Your task to perform on an android device: Clear the shopping cart on bestbuy.com. Add rayovac triple a to the cart on bestbuy.com Image 0: 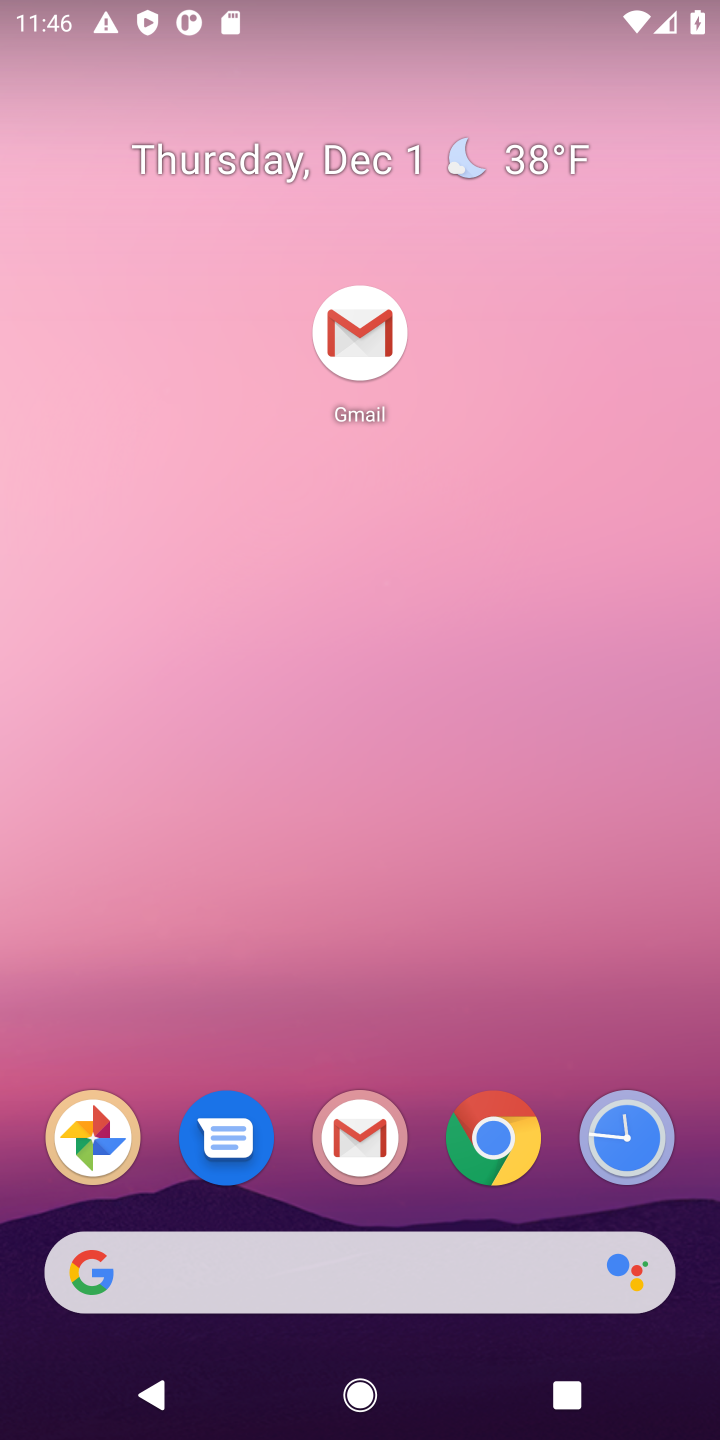
Step 0: drag from (422, 1130) to (440, 396)
Your task to perform on an android device: Clear the shopping cart on bestbuy.com. Add rayovac triple a to the cart on bestbuy.com Image 1: 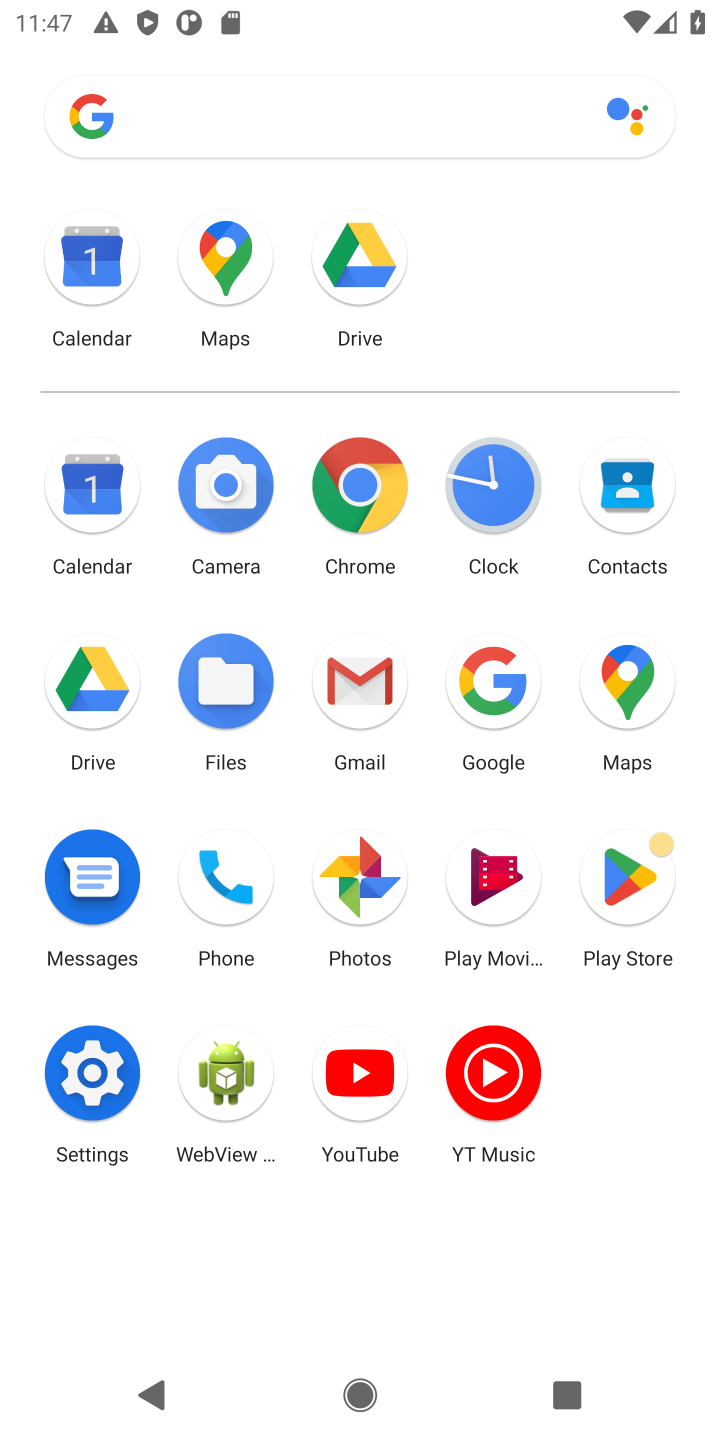
Step 1: click (498, 707)
Your task to perform on an android device: Clear the shopping cart on bestbuy.com. Add rayovac triple a to the cart on bestbuy.com Image 2: 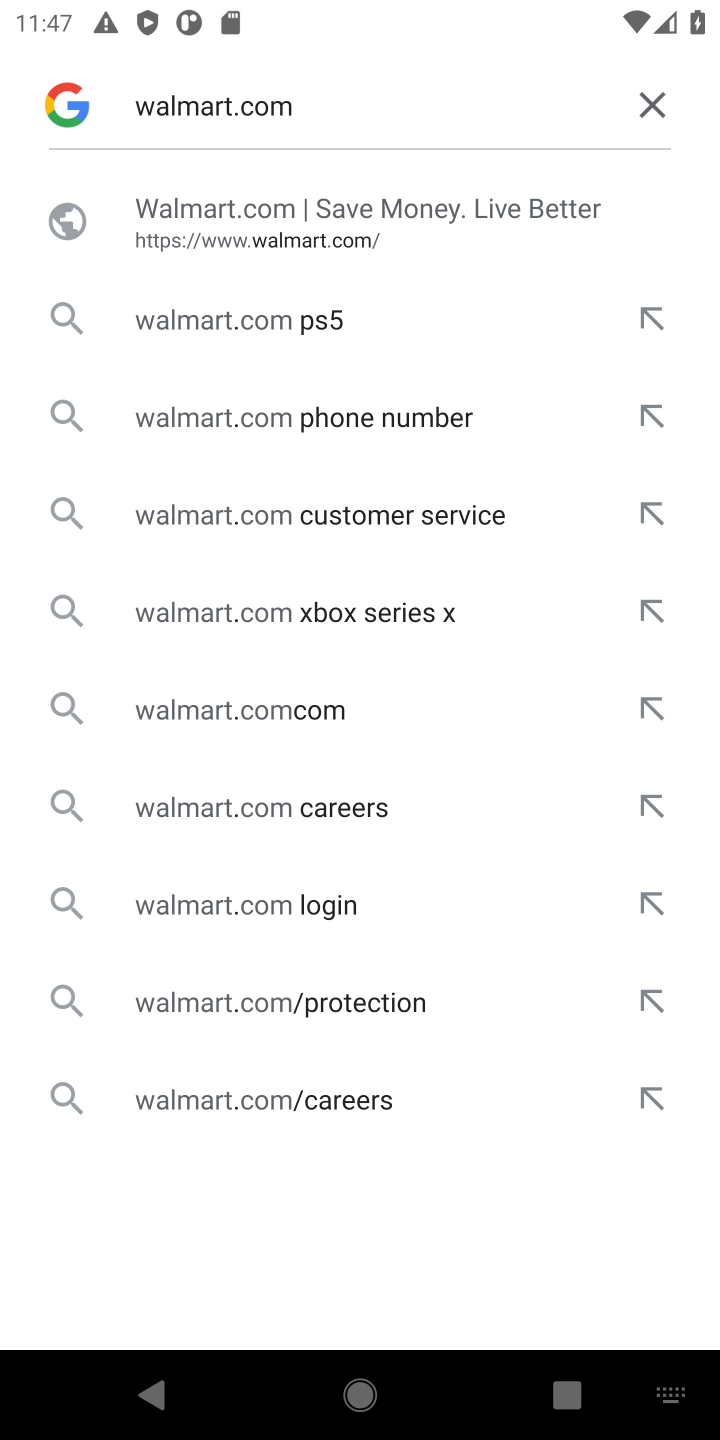
Step 2: click (649, 107)
Your task to perform on an android device: Clear the shopping cart on bestbuy.com. Add rayovac triple a to the cart on bestbuy.com Image 3: 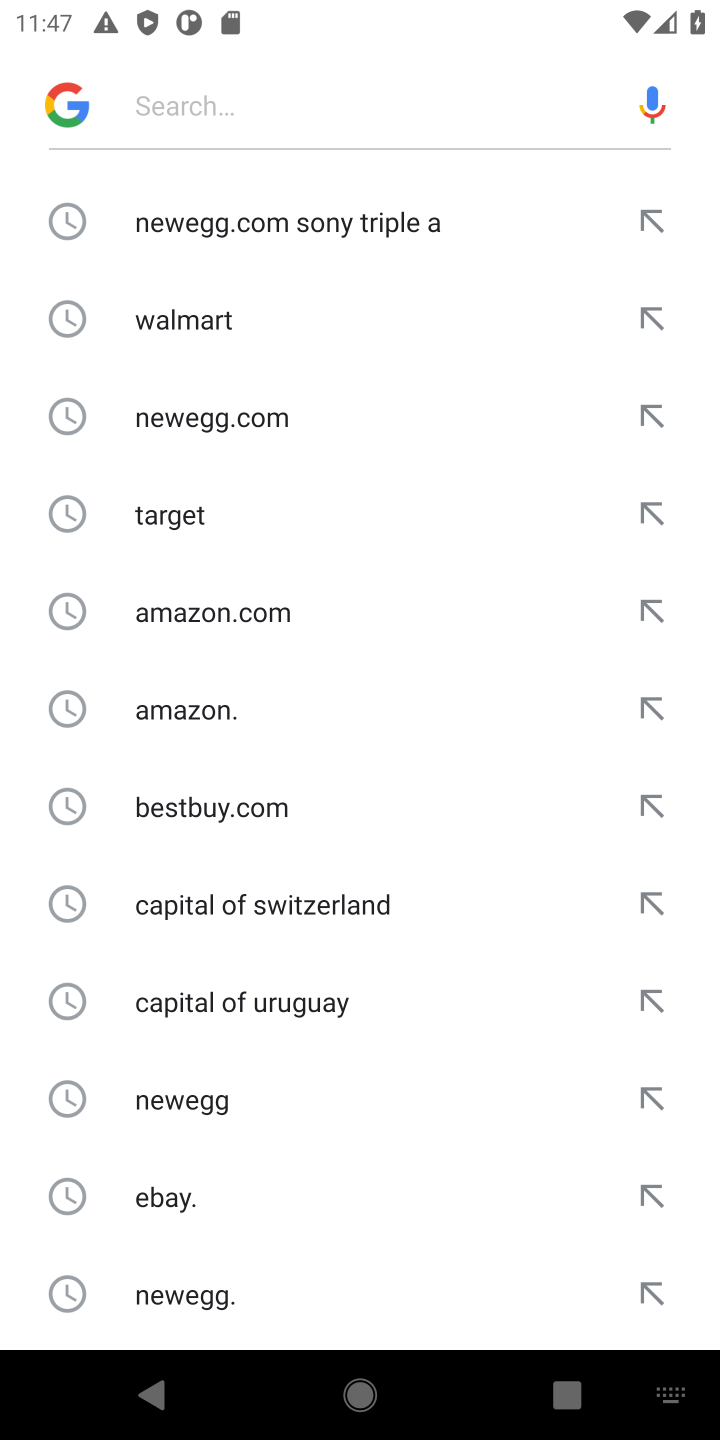
Step 3: type "bestbuy.com"
Your task to perform on an android device: Clear the shopping cart on bestbuy.com. Add rayovac triple a to the cart on bestbuy.com Image 4: 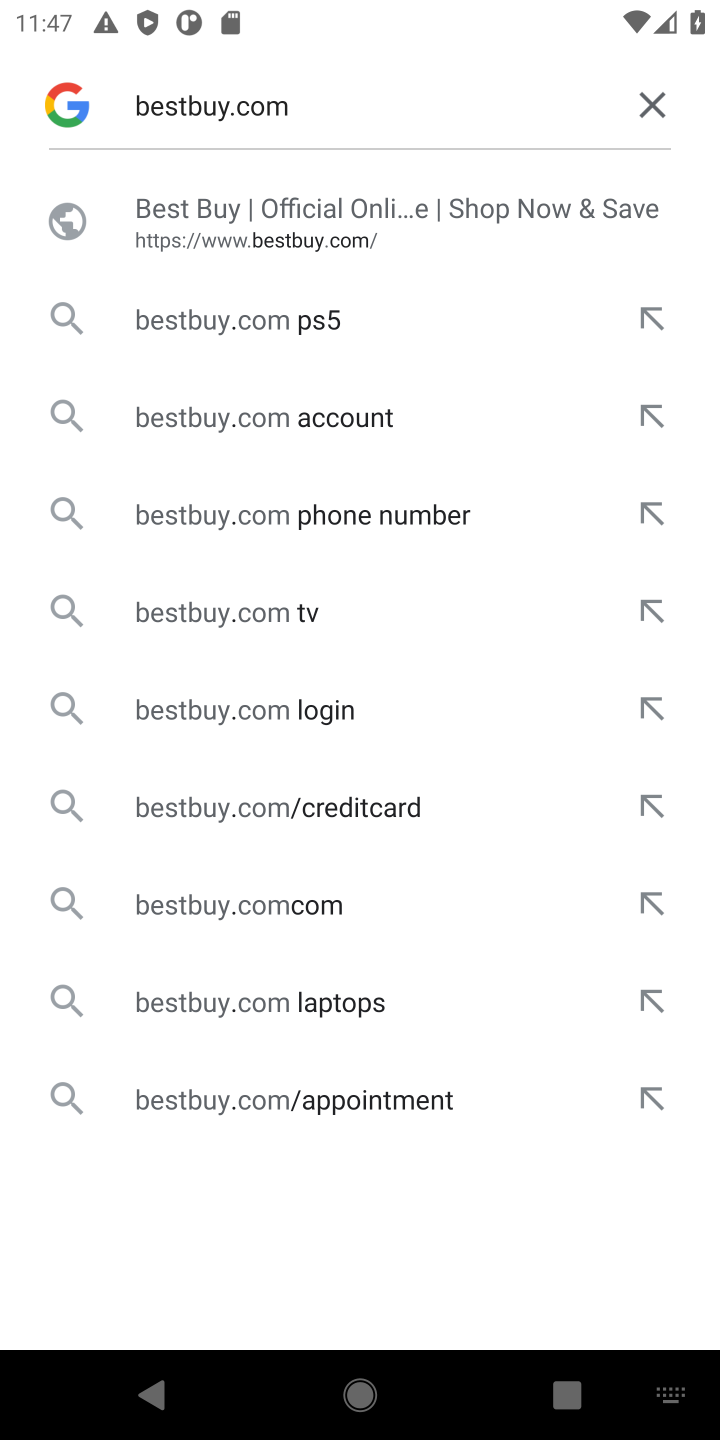
Step 4: click (418, 241)
Your task to perform on an android device: Clear the shopping cart on bestbuy.com. Add rayovac triple a to the cart on bestbuy.com Image 5: 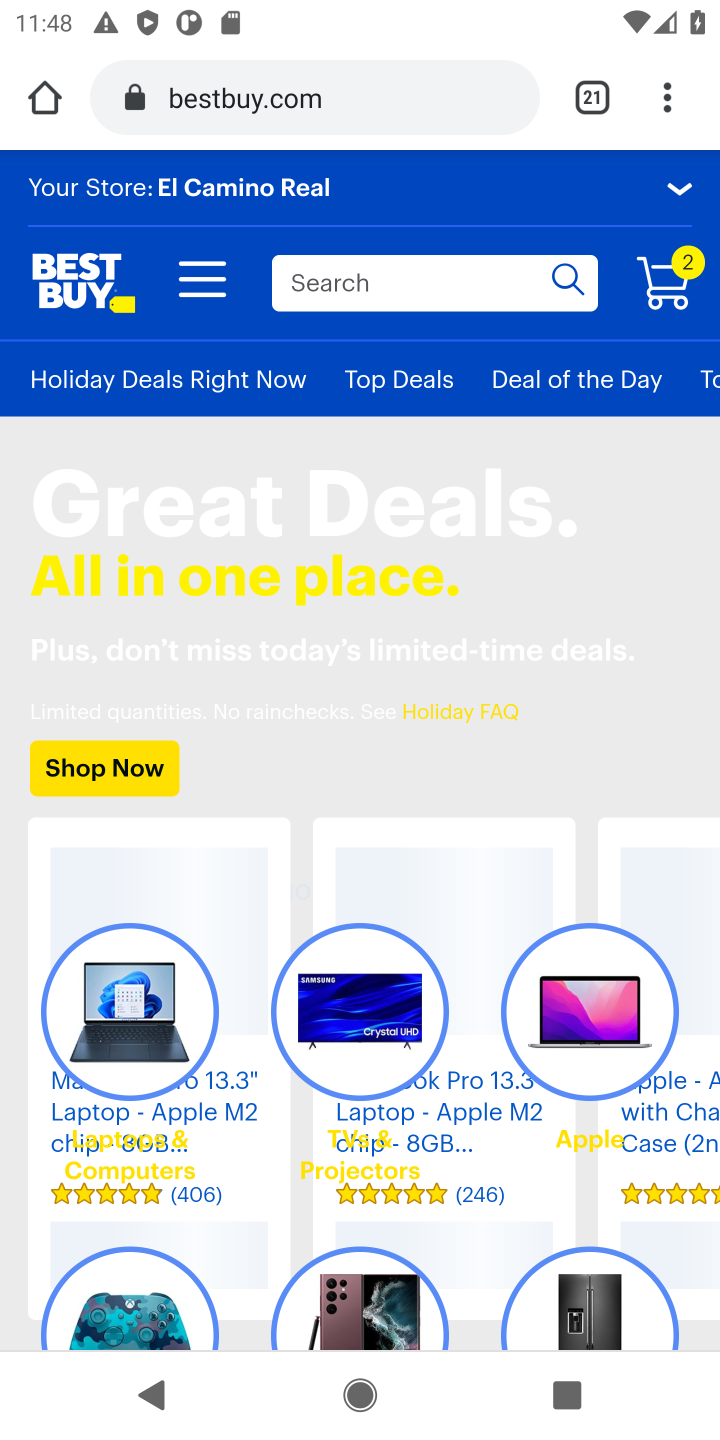
Step 5: click (666, 300)
Your task to perform on an android device: Clear the shopping cart on bestbuy.com. Add rayovac triple a to the cart on bestbuy.com Image 6: 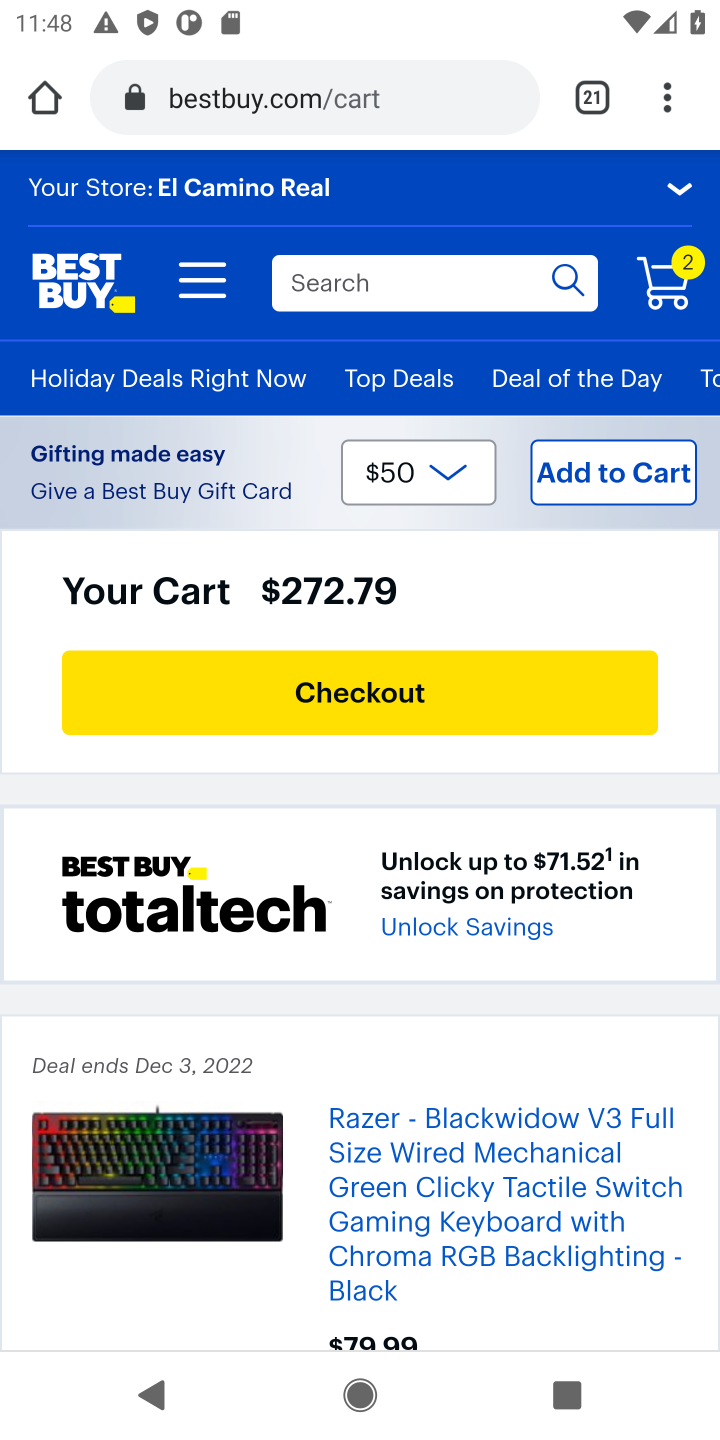
Step 6: drag from (498, 999) to (570, 437)
Your task to perform on an android device: Clear the shopping cart on bestbuy.com. Add rayovac triple a to the cart on bestbuy.com Image 7: 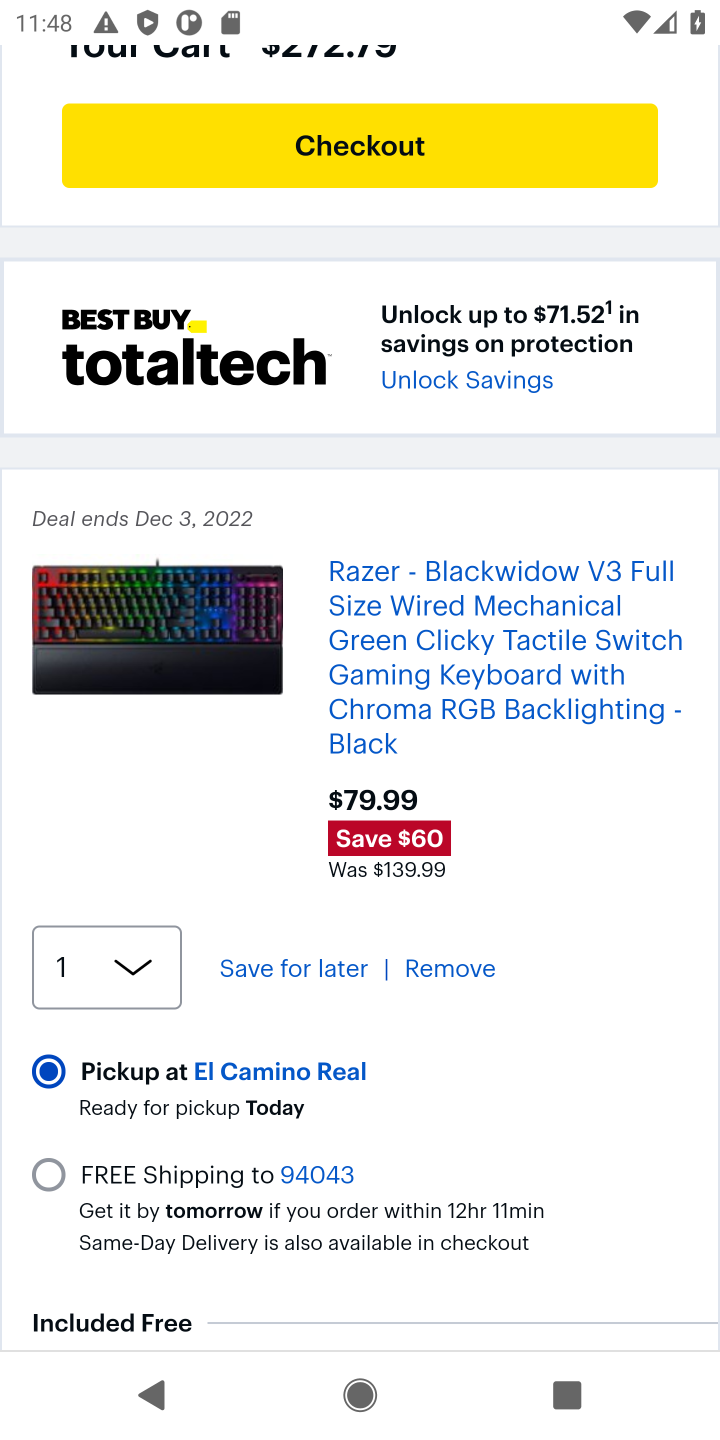
Step 7: drag from (323, 1047) to (343, 691)
Your task to perform on an android device: Clear the shopping cart on bestbuy.com. Add rayovac triple a to the cart on bestbuy.com Image 8: 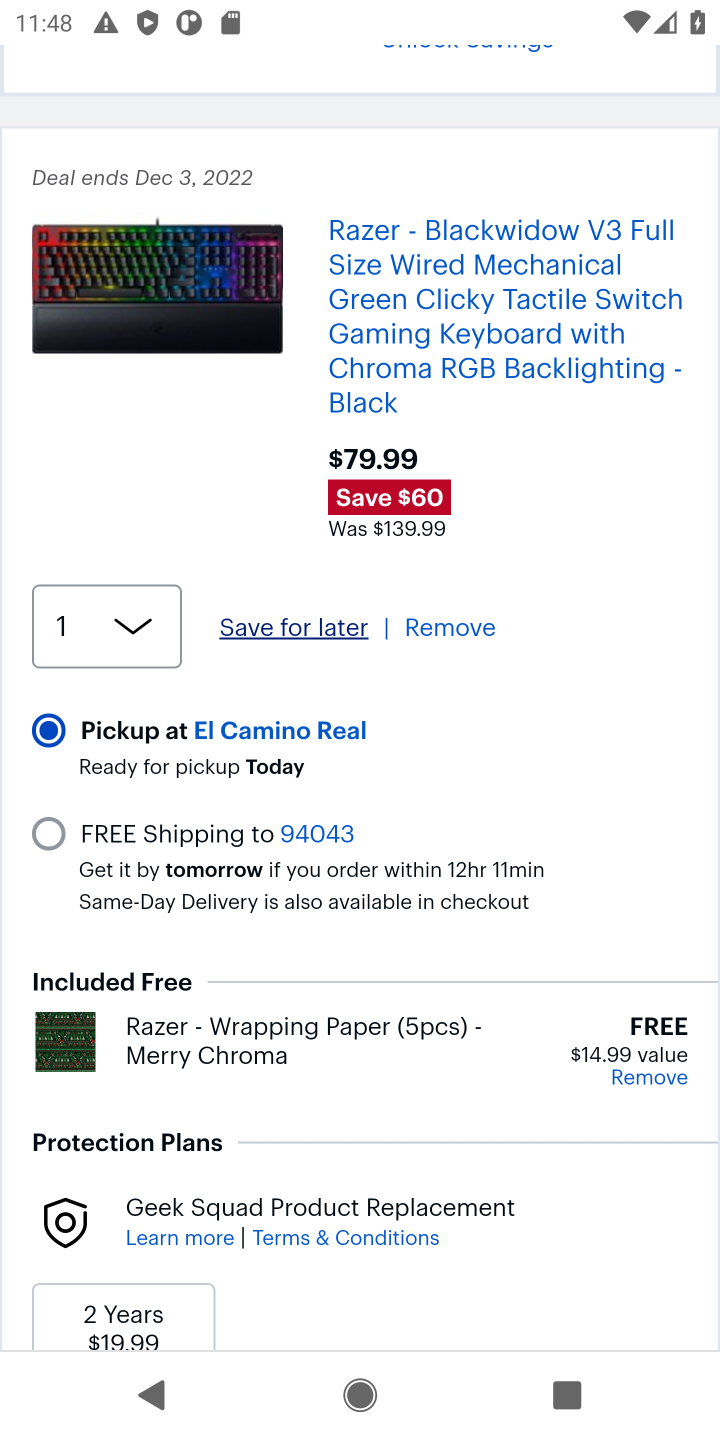
Step 8: click (417, 628)
Your task to perform on an android device: Clear the shopping cart on bestbuy.com. Add rayovac triple a to the cart on bestbuy.com Image 9: 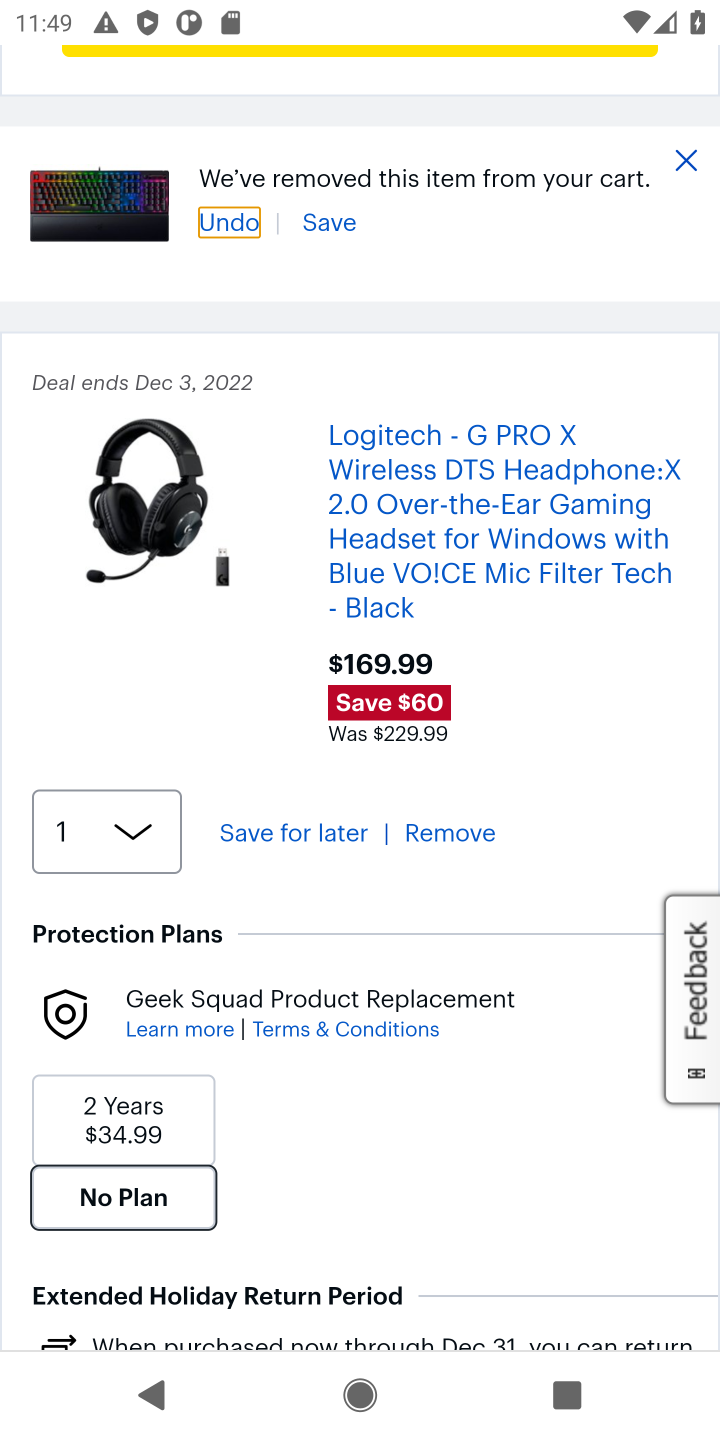
Step 9: click (448, 828)
Your task to perform on an android device: Clear the shopping cart on bestbuy.com. Add rayovac triple a to the cart on bestbuy.com Image 10: 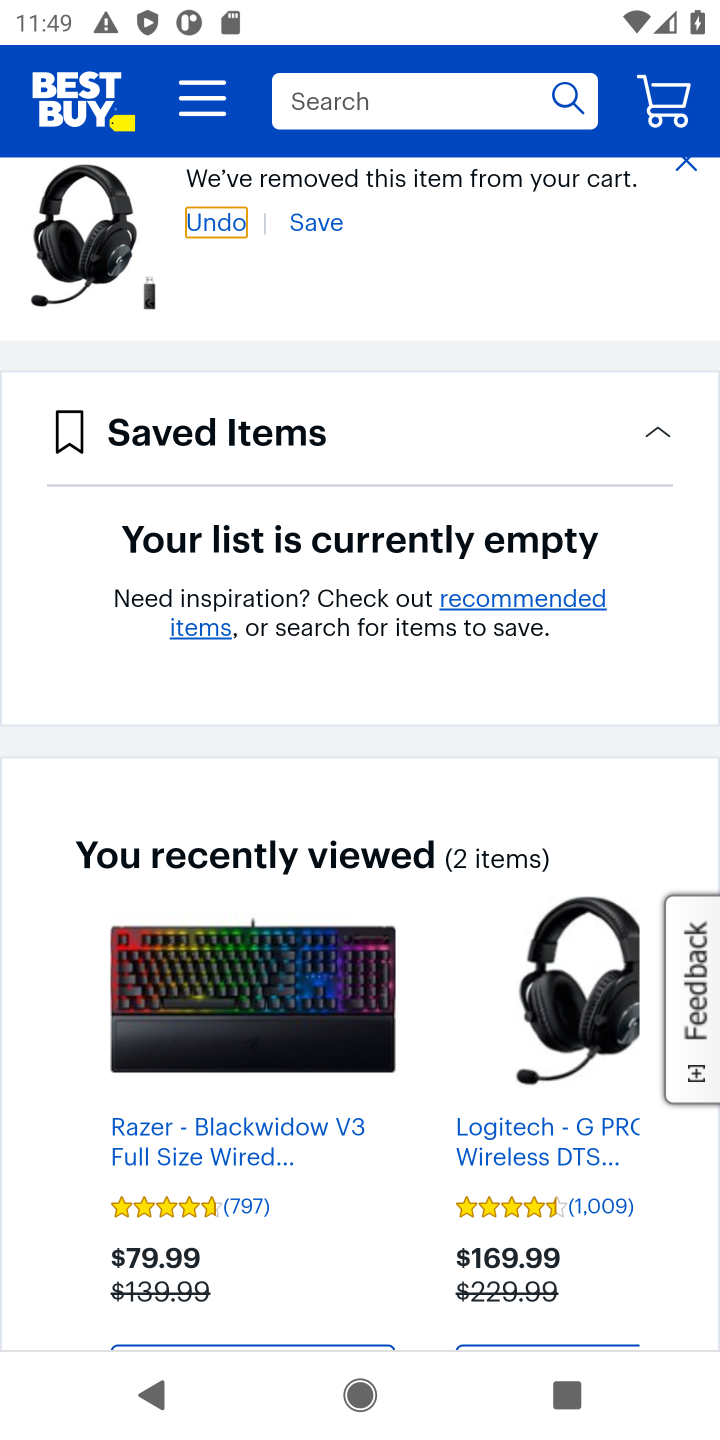
Step 10: click (472, 84)
Your task to perform on an android device: Clear the shopping cart on bestbuy.com. Add rayovac triple a to the cart on bestbuy.com Image 11: 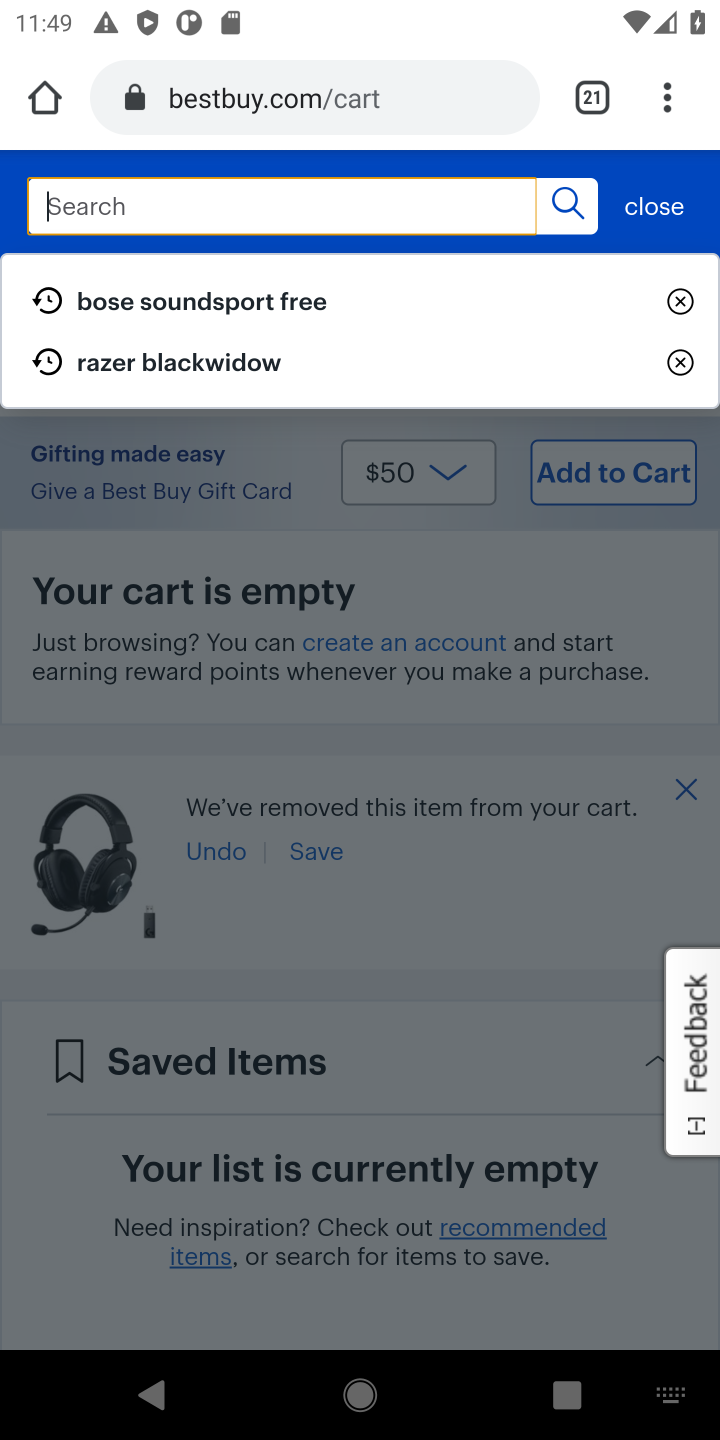
Step 11: type "rayovac triple a"
Your task to perform on an android device: Clear the shopping cart on bestbuy.com. Add rayovac triple a to the cart on bestbuy.com Image 12: 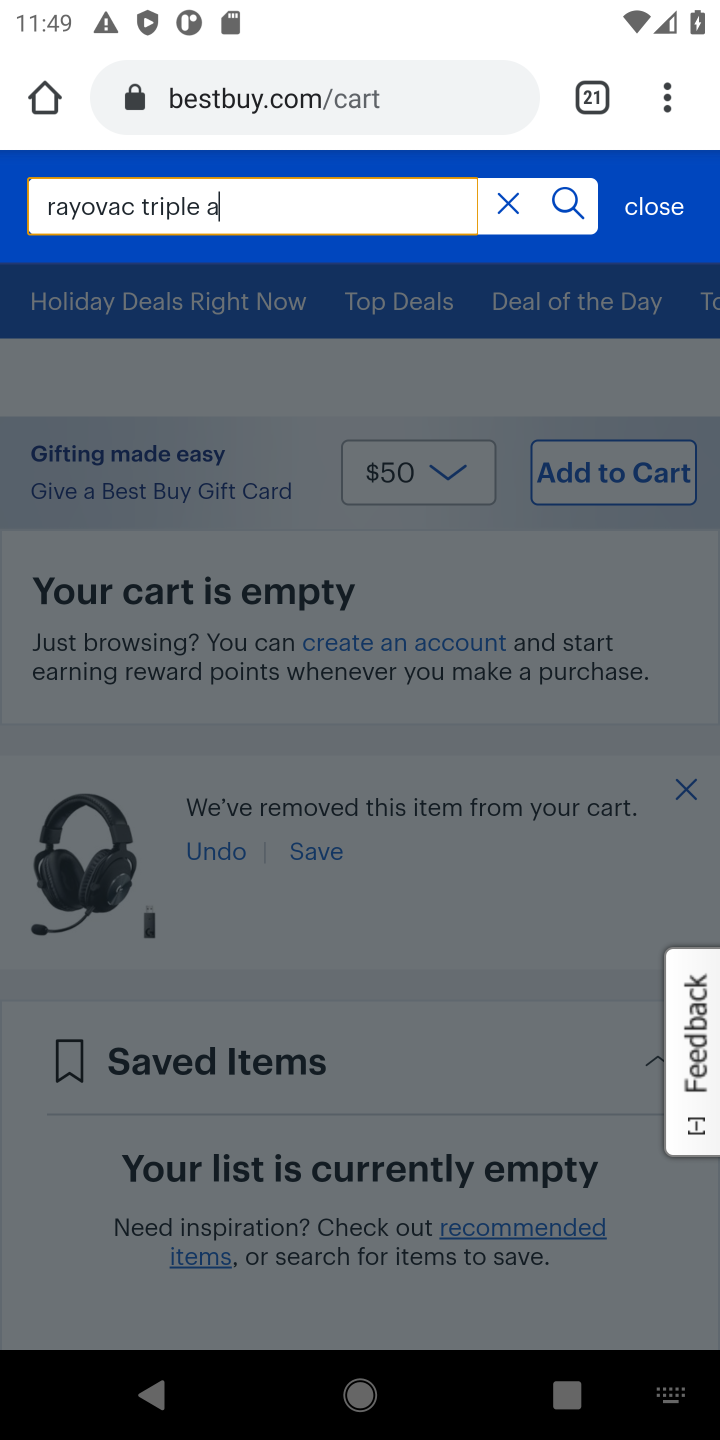
Step 12: click (569, 205)
Your task to perform on an android device: Clear the shopping cart on bestbuy.com. Add rayovac triple a to the cart on bestbuy.com Image 13: 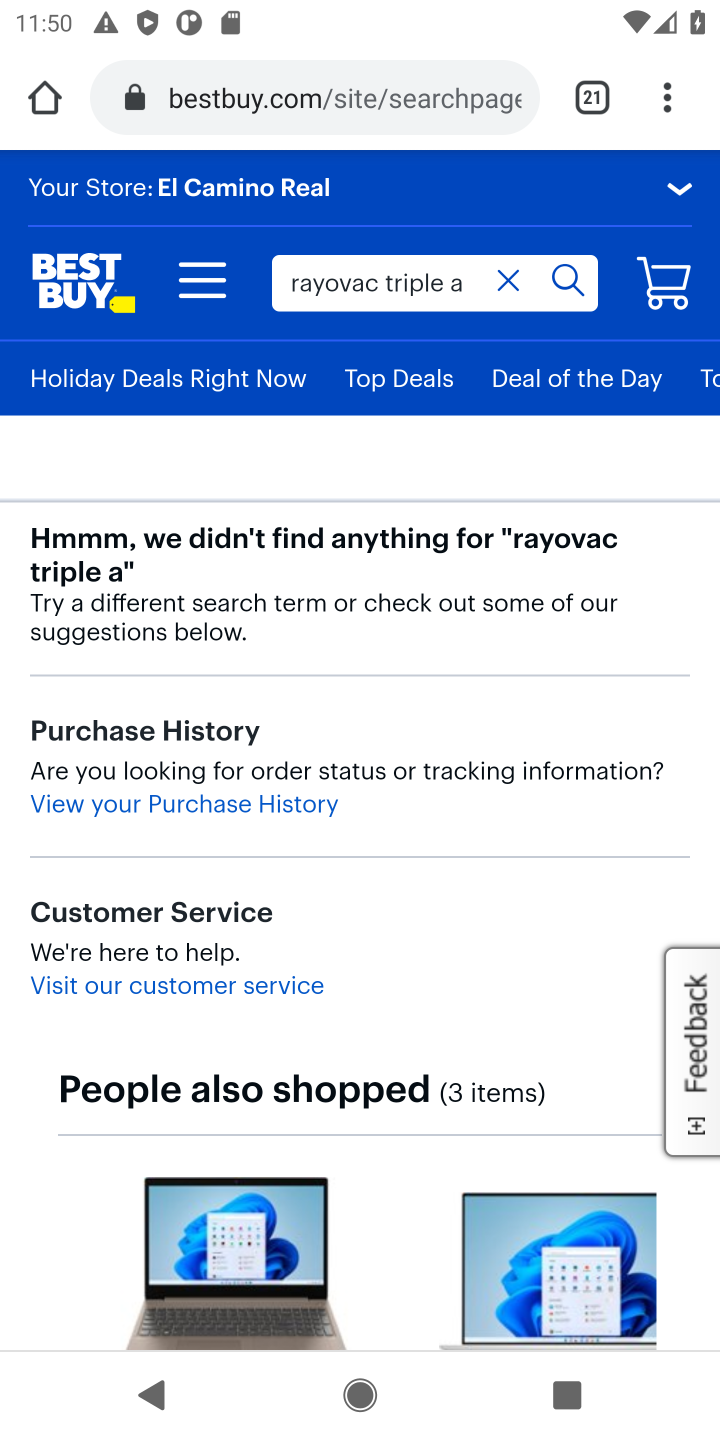
Step 13: task complete